Your task to perform on an android device: set default search engine in the chrome app Image 0: 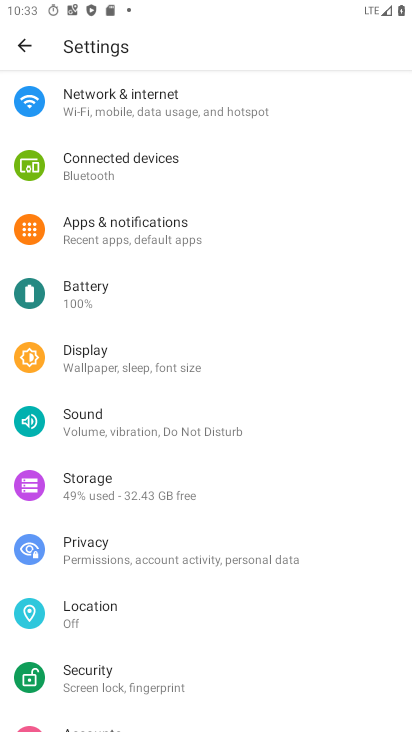
Step 0: press home button
Your task to perform on an android device: set default search engine in the chrome app Image 1: 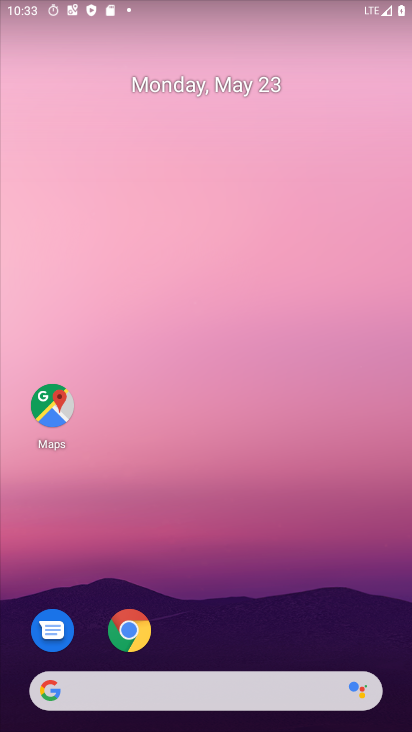
Step 1: click (143, 636)
Your task to perform on an android device: set default search engine in the chrome app Image 2: 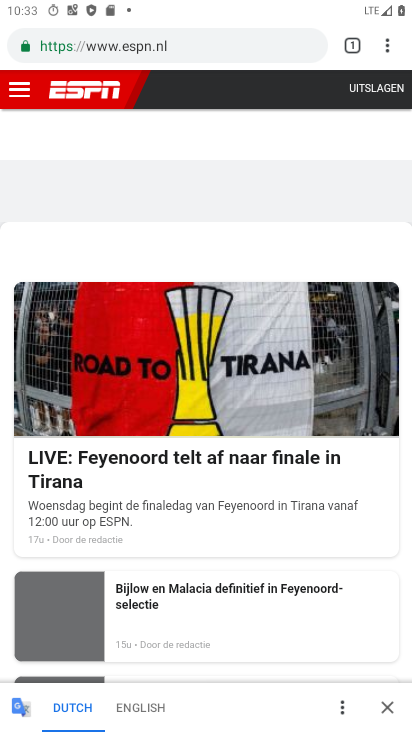
Step 2: click (388, 45)
Your task to perform on an android device: set default search engine in the chrome app Image 3: 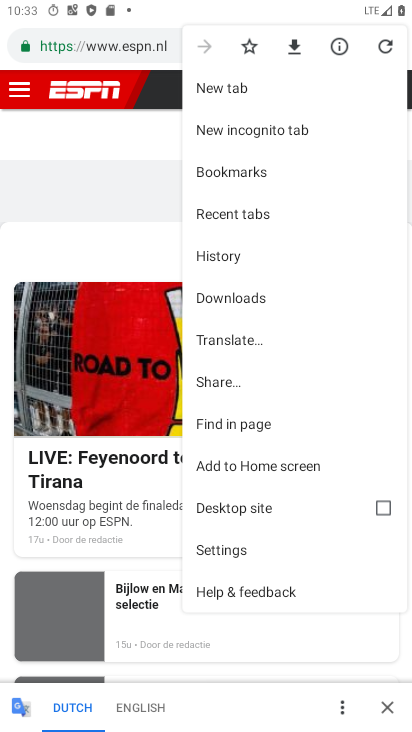
Step 3: click (216, 546)
Your task to perform on an android device: set default search engine in the chrome app Image 4: 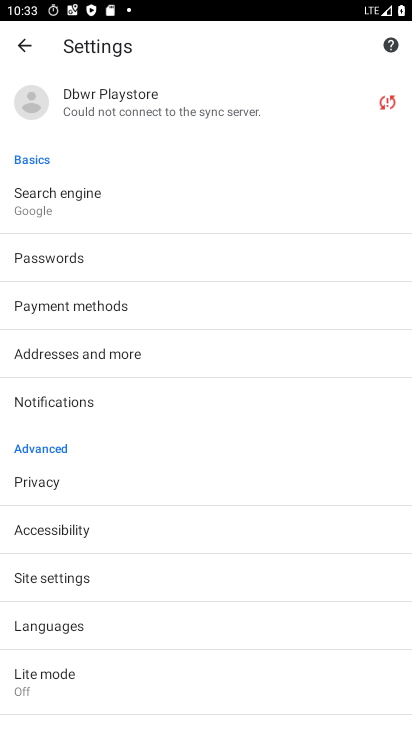
Step 4: click (51, 198)
Your task to perform on an android device: set default search engine in the chrome app Image 5: 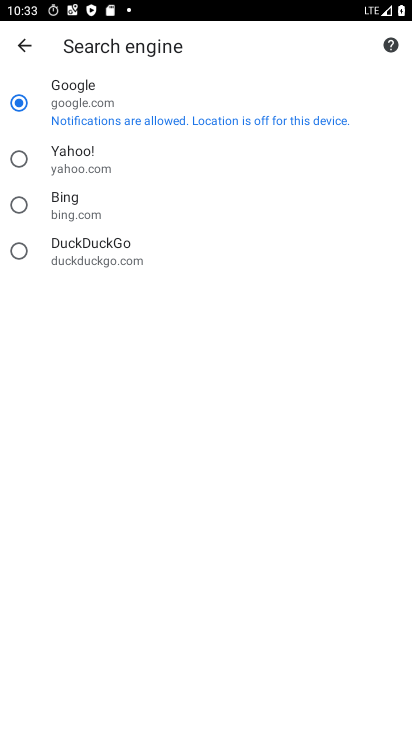
Step 5: click (24, 162)
Your task to perform on an android device: set default search engine in the chrome app Image 6: 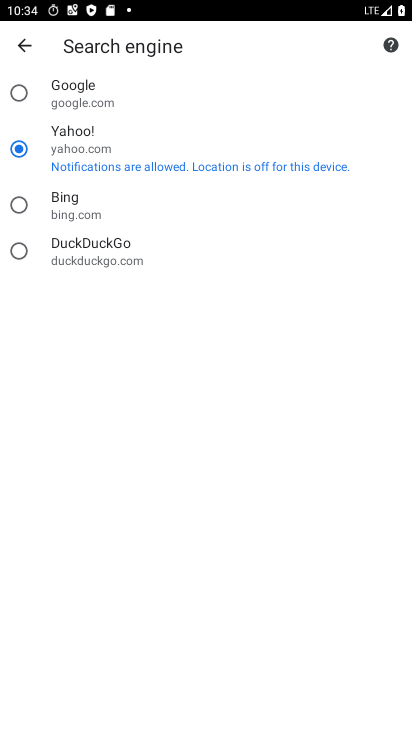
Step 6: task complete